Your task to perform on an android device: refresh tabs in the chrome app Image 0: 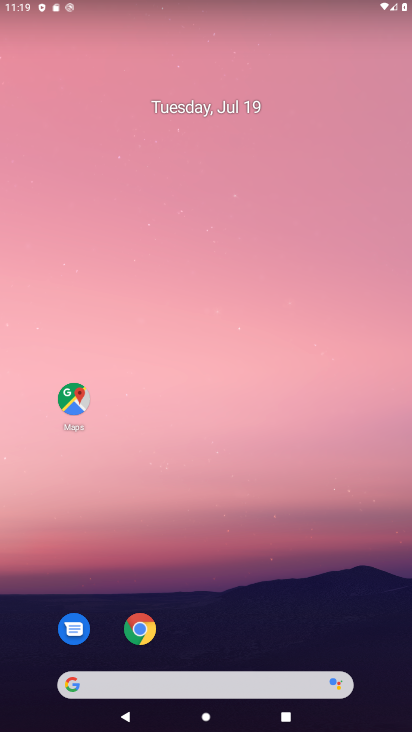
Step 0: drag from (340, 591) to (220, 54)
Your task to perform on an android device: refresh tabs in the chrome app Image 1: 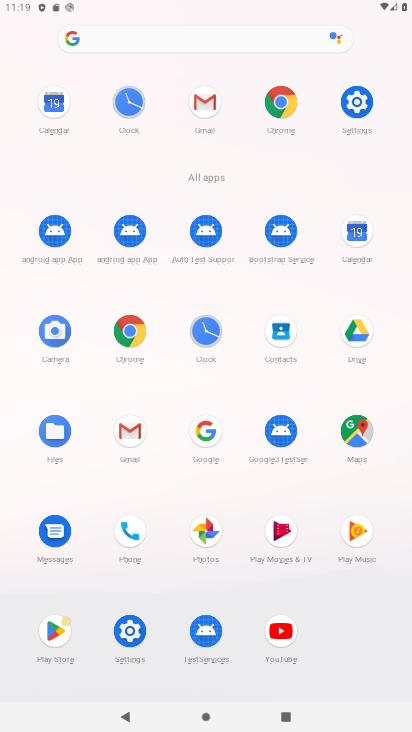
Step 1: click (279, 101)
Your task to perform on an android device: refresh tabs in the chrome app Image 2: 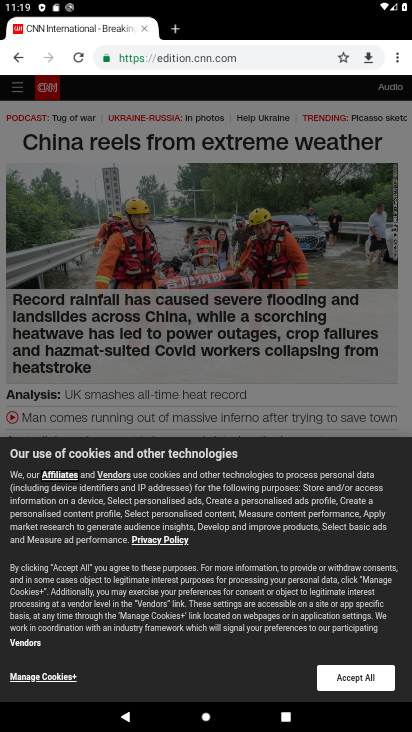
Step 2: drag from (396, 56) to (76, 55)
Your task to perform on an android device: refresh tabs in the chrome app Image 3: 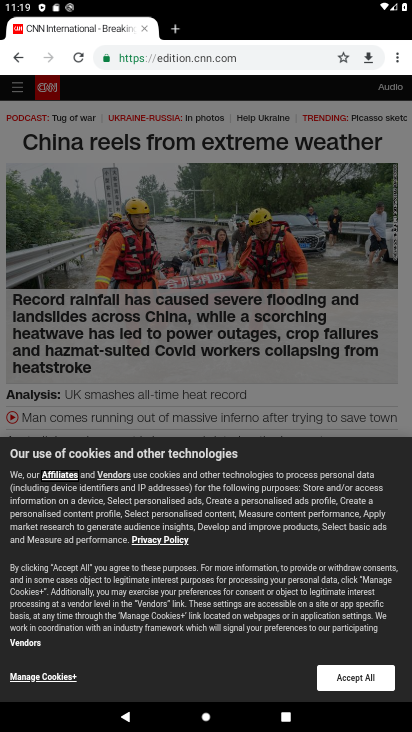
Step 3: click (76, 55)
Your task to perform on an android device: refresh tabs in the chrome app Image 4: 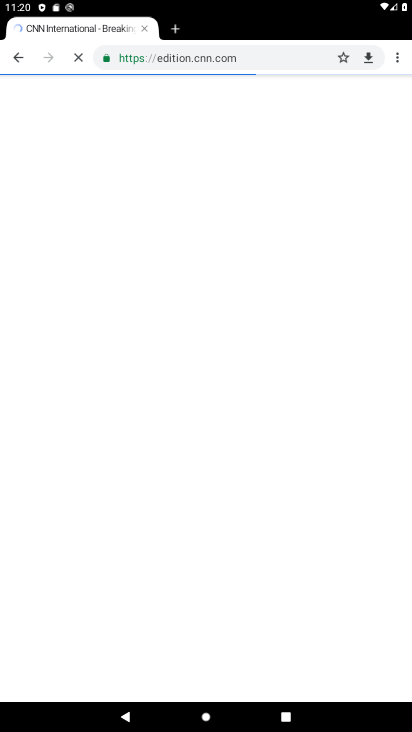
Step 4: task complete